Your task to perform on an android device: Open the calendar and show me this week's events? Image 0: 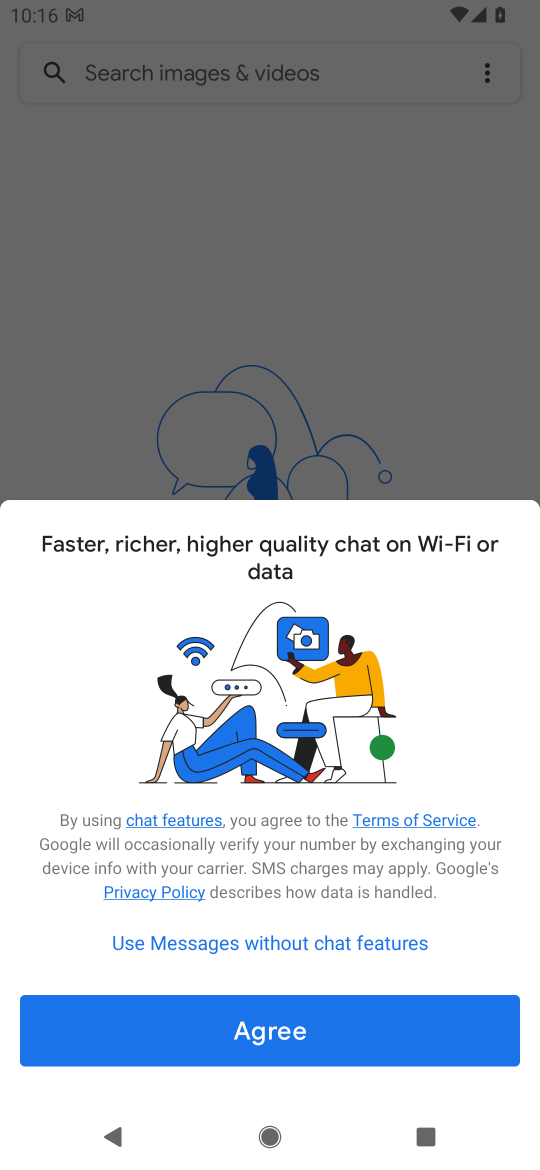
Step 0: press home button
Your task to perform on an android device: Open the calendar and show me this week's events? Image 1: 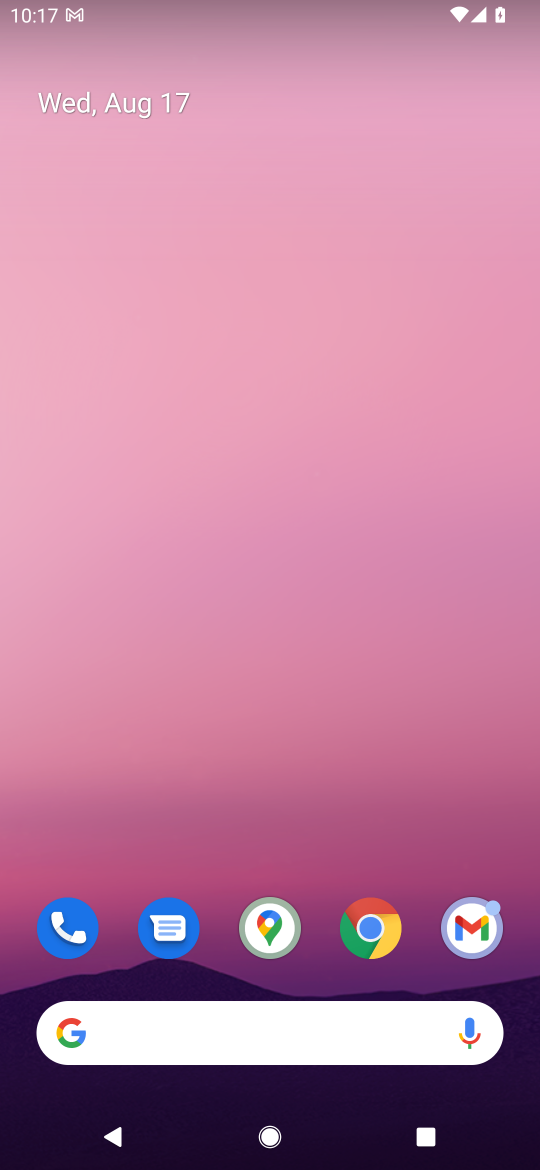
Step 1: drag from (267, 845) to (177, 264)
Your task to perform on an android device: Open the calendar and show me this week's events? Image 2: 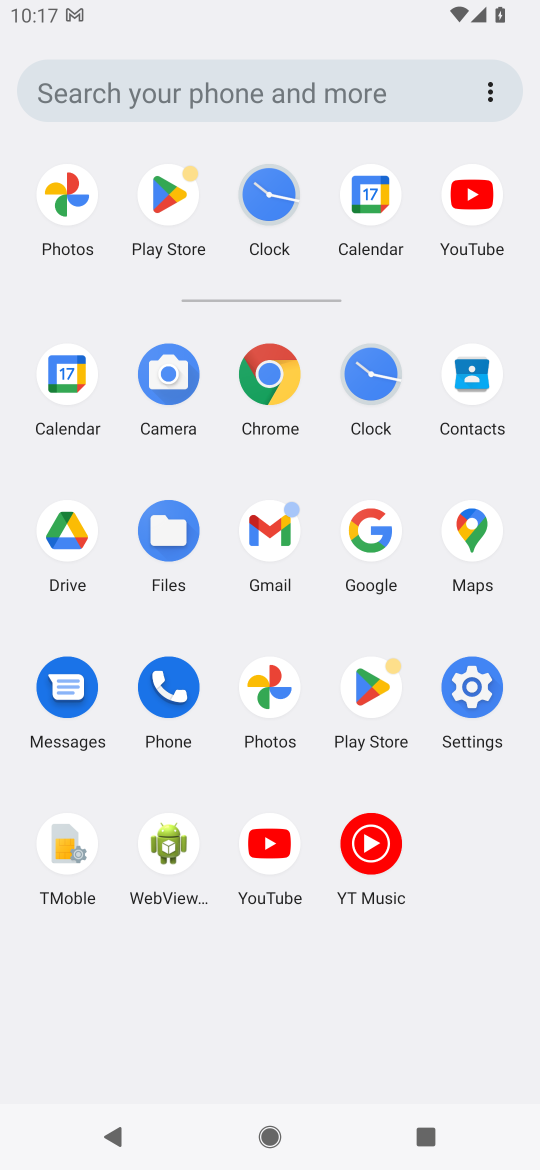
Step 2: click (52, 382)
Your task to perform on an android device: Open the calendar and show me this week's events? Image 3: 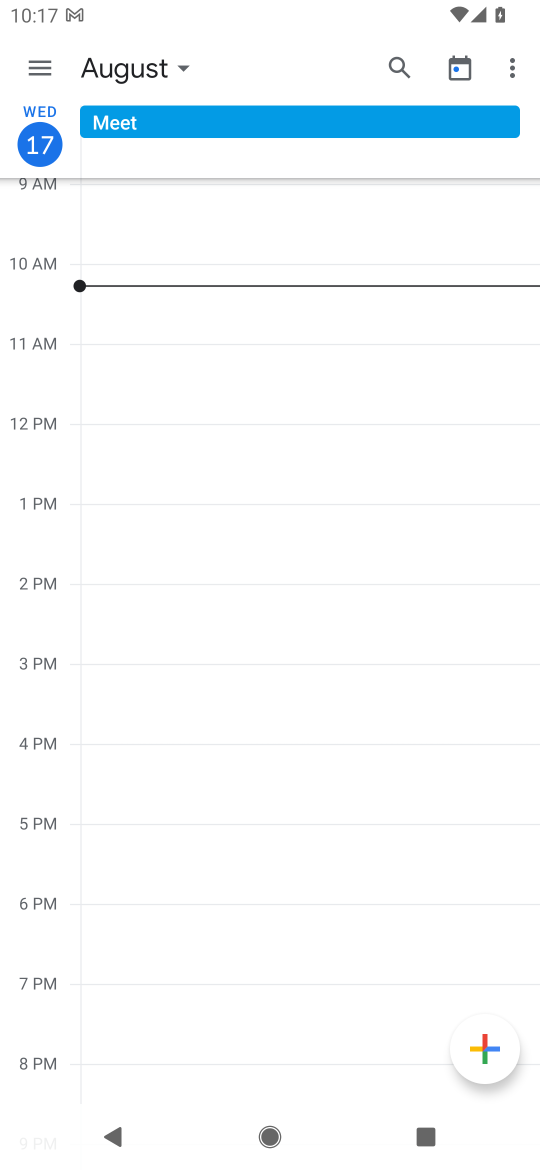
Step 3: click (49, 67)
Your task to perform on an android device: Open the calendar and show me this week's events? Image 4: 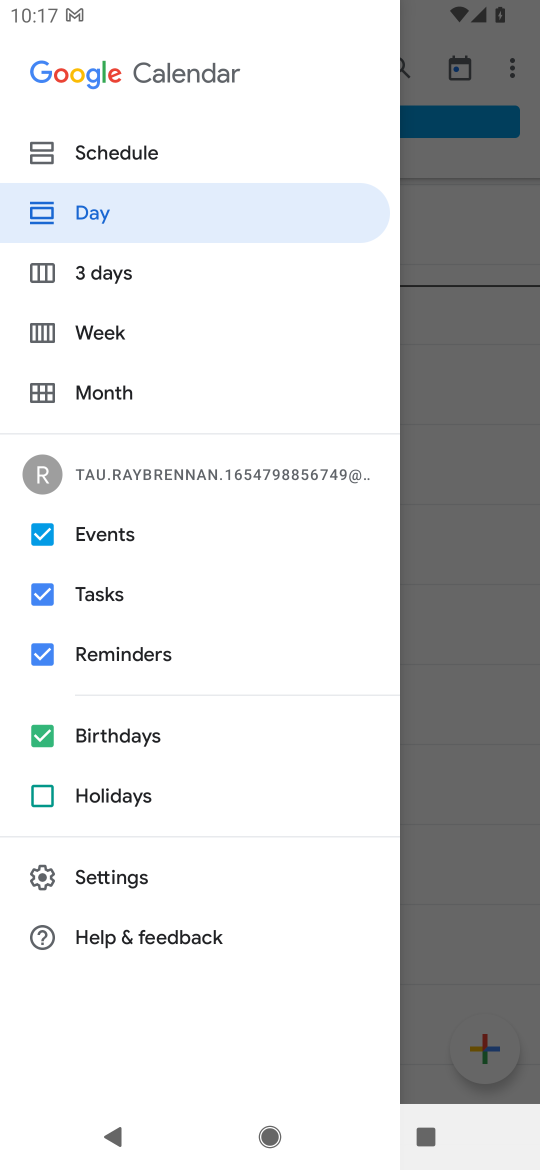
Step 4: click (94, 329)
Your task to perform on an android device: Open the calendar and show me this week's events? Image 5: 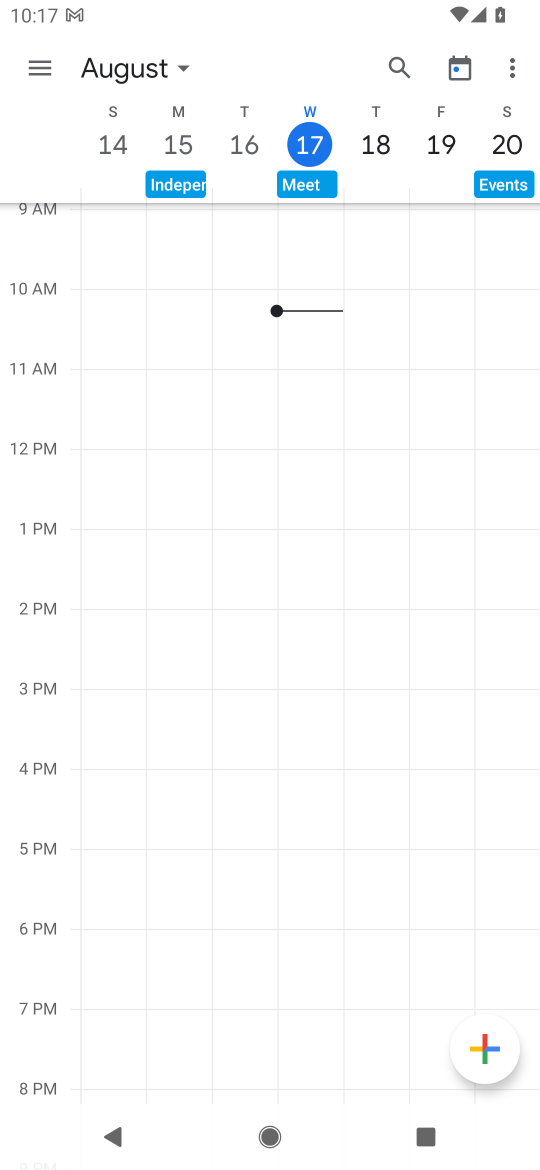
Step 5: task complete